Your task to perform on an android device: see creations saved in the google photos Image 0: 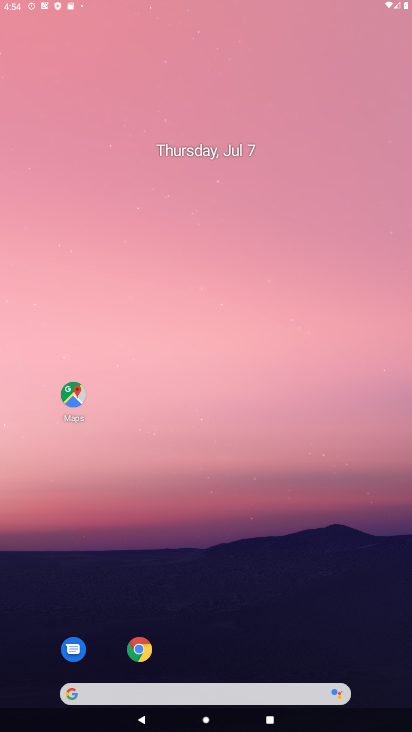
Step 0: drag from (375, 652) to (192, 0)
Your task to perform on an android device: see creations saved in the google photos Image 1: 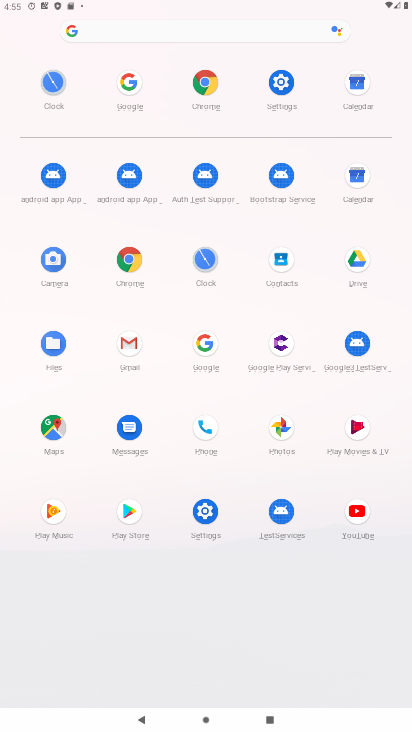
Step 1: click (273, 438)
Your task to perform on an android device: see creations saved in the google photos Image 2: 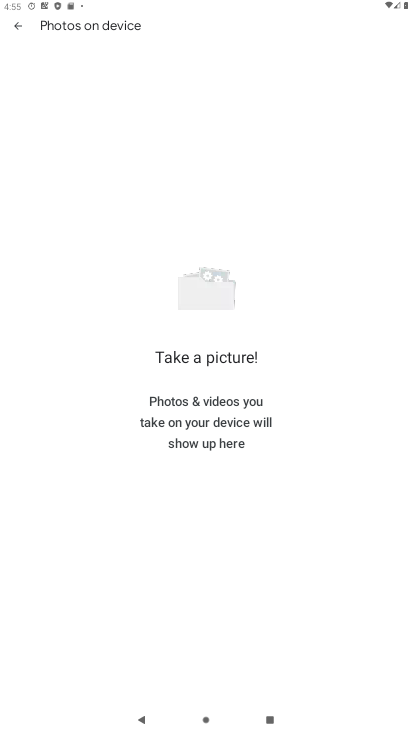
Step 2: press back button
Your task to perform on an android device: see creations saved in the google photos Image 3: 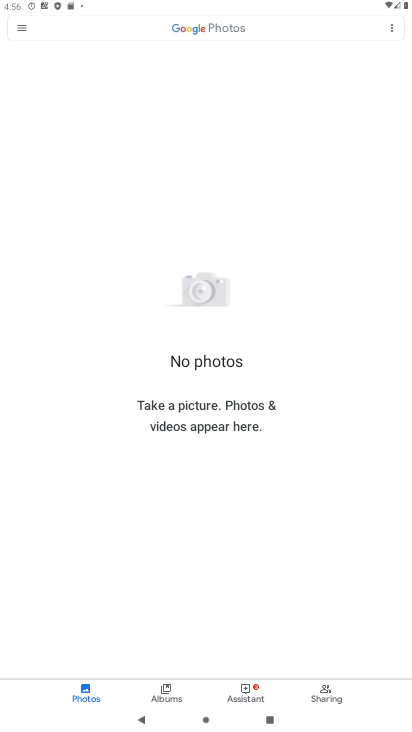
Step 3: click (91, 37)
Your task to perform on an android device: see creations saved in the google photos Image 4: 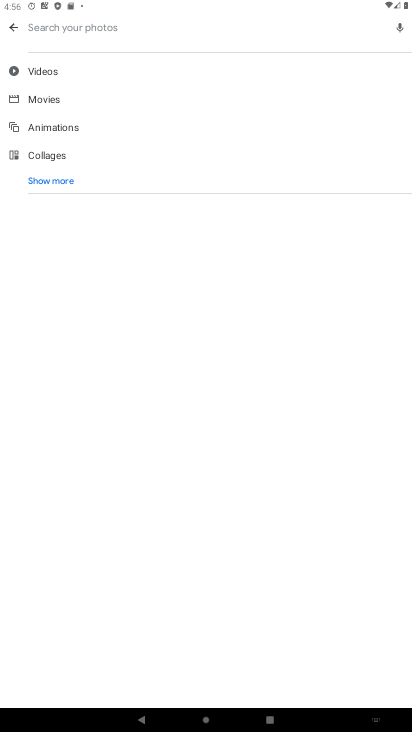
Step 4: click (38, 194)
Your task to perform on an android device: see creations saved in the google photos Image 5: 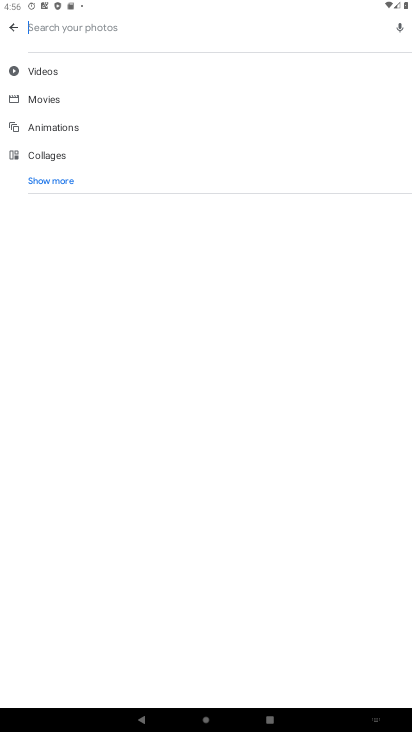
Step 5: click (49, 180)
Your task to perform on an android device: see creations saved in the google photos Image 6: 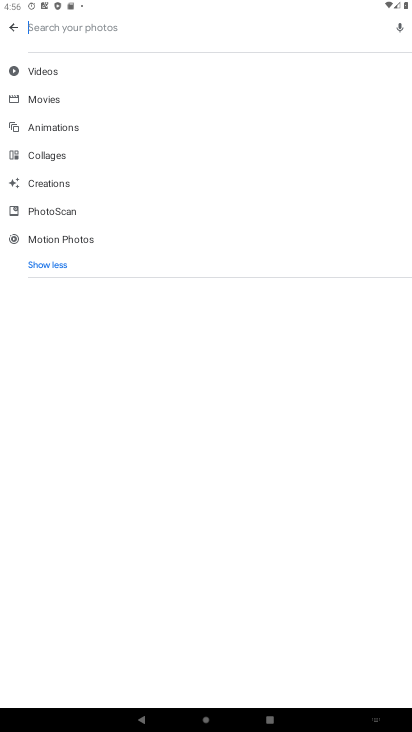
Step 6: click (47, 179)
Your task to perform on an android device: see creations saved in the google photos Image 7: 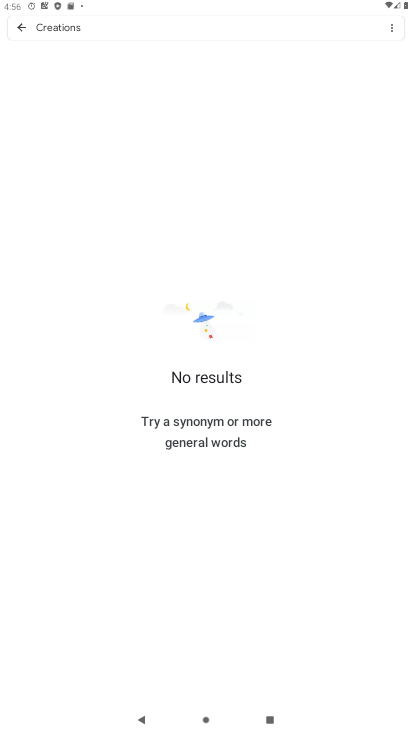
Step 7: task complete